Your task to perform on an android device: Add apple airpods to the cart on amazon.com, then select checkout. Image 0: 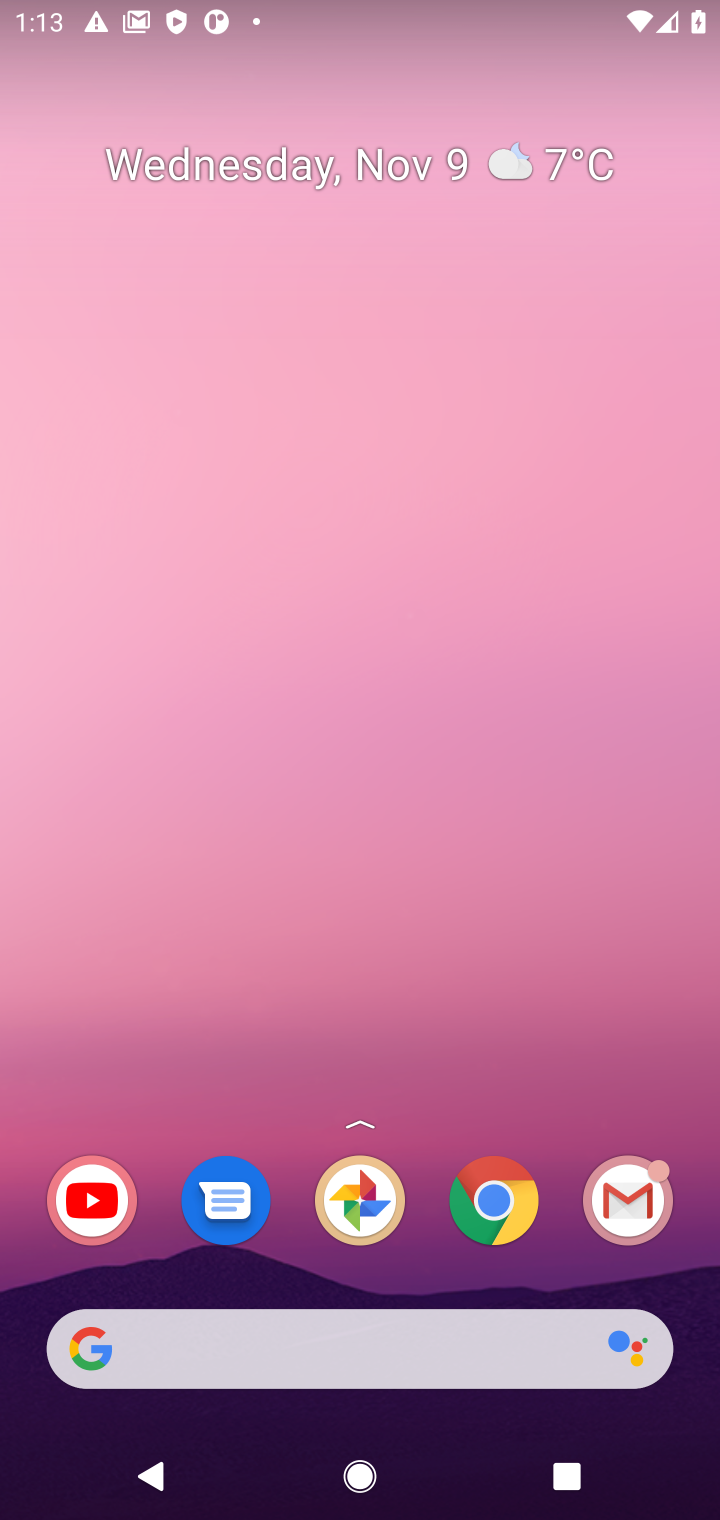
Step 0: click (243, 1336)
Your task to perform on an android device: Add apple airpods to the cart on amazon.com, then select checkout. Image 1: 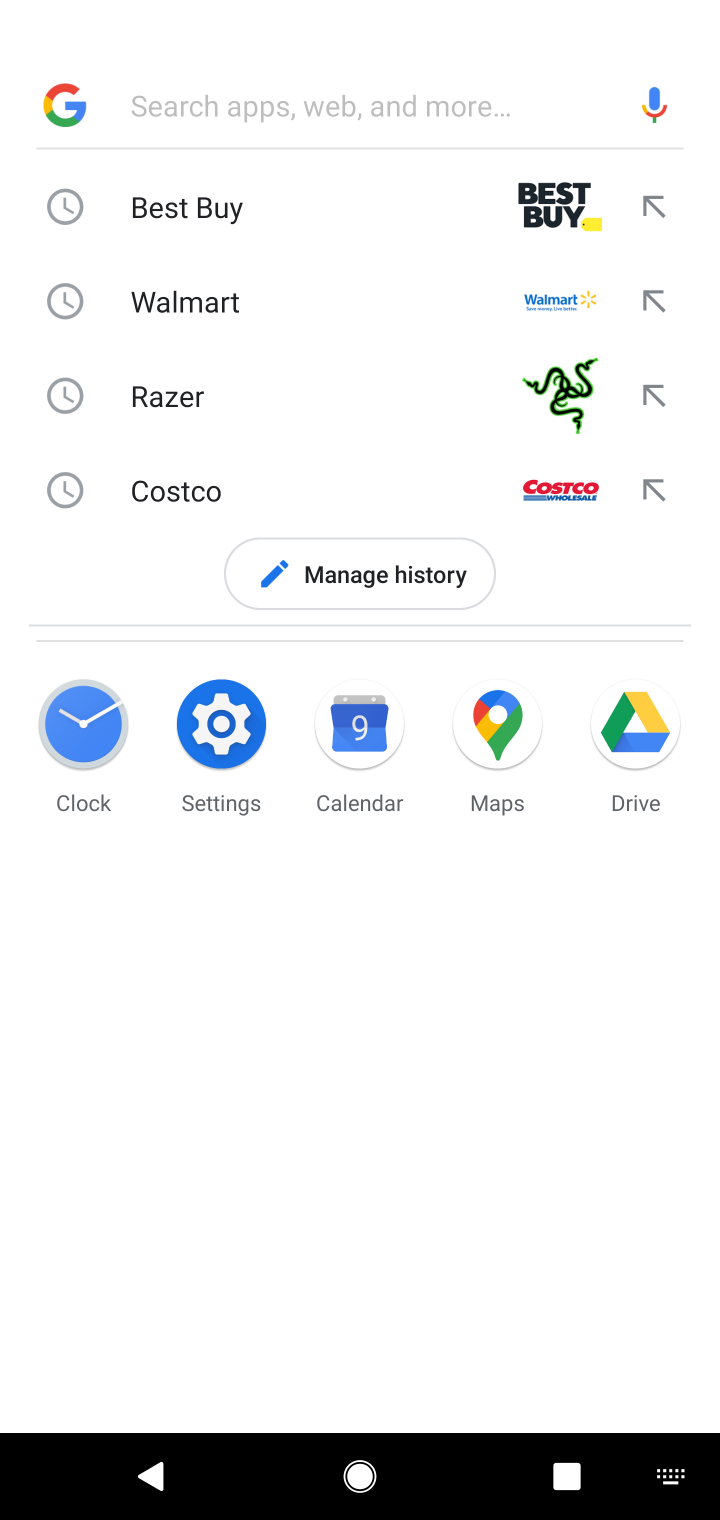
Step 1: task complete